Your task to perform on an android device: Open Youtube and go to "Your channel" Image 0: 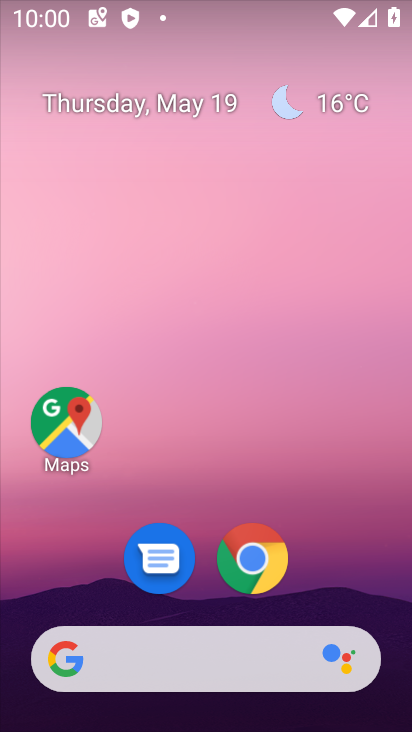
Step 0: drag from (200, 727) to (208, 88)
Your task to perform on an android device: Open Youtube and go to "Your channel" Image 1: 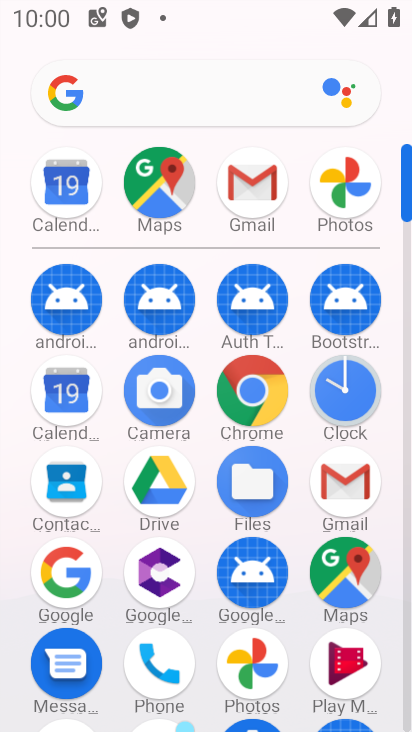
Step 1: drag from (201, 636) to (224, 184)
Your task to perform on an android device: Open Youtube and go to "Your channel" Image 2: 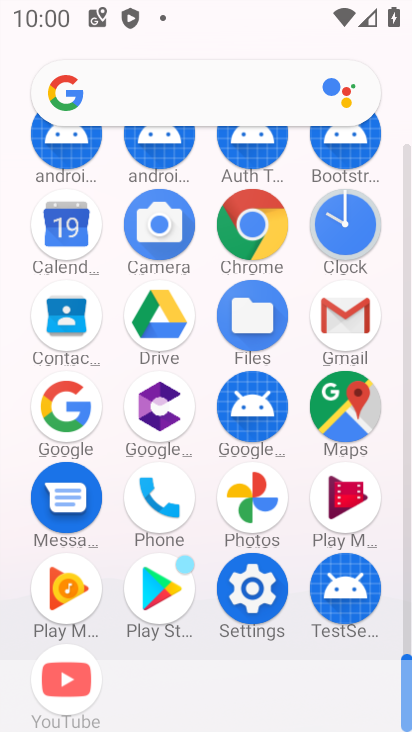
Step 2: click (60, 665)
Your task to perform on an android device: Open Youtube and go to "Your channel" Image 3: 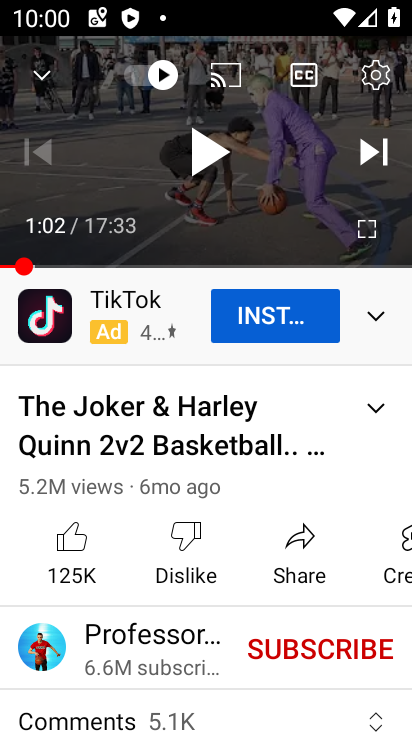
Step 3: click (44, 73)
Your task to perform on an android device: Open Youtube and go to "Your channel" Image 4: 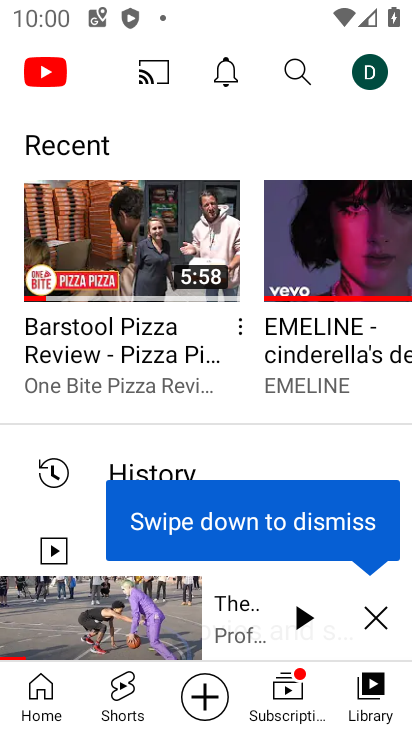
Step 4: click (371, 73)
Your task to perform on an android device: Open Youtube and go to "Your channel" Image 5: 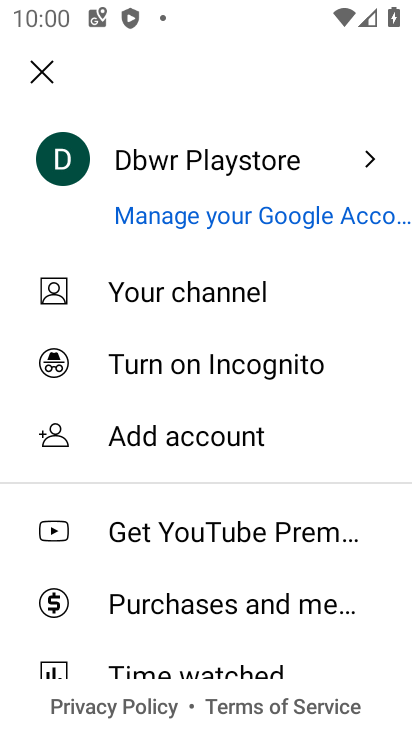
Step 5: click (161, 293)
Your task to perform on an android device: Open Youtube and go to "Your channel" Image 6: 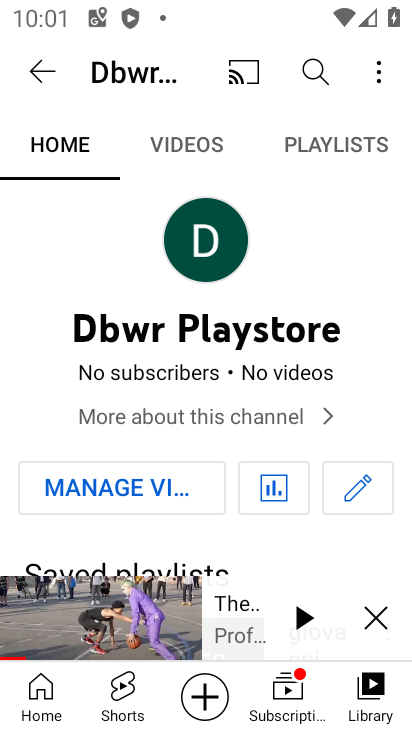
Step 6: task complete